Your task to perform on an android device: turn on priority inbox in the gmail app Image 0: 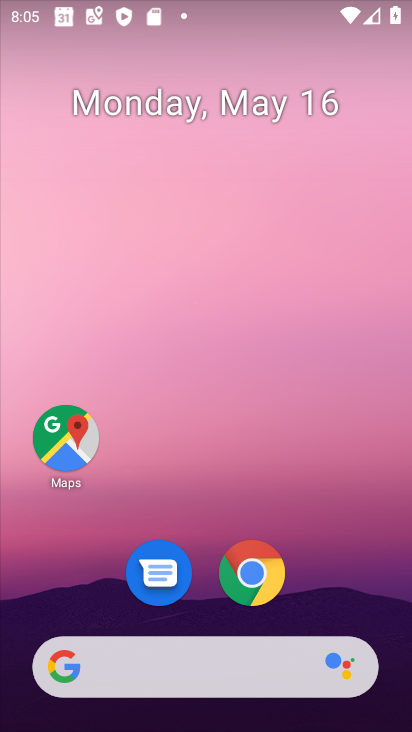
Step 0: drag from (360, 522) to (321, 104)
Your task to perform on an android device: turn on priority inbox in the gmail app Image 1: 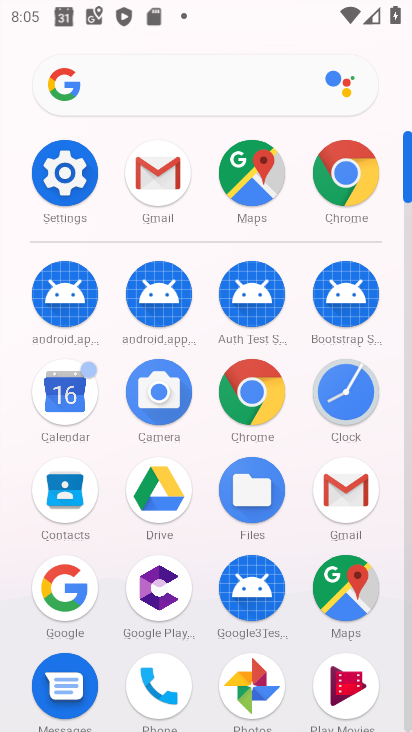
Step 1: click (154, 176)
Your task to perform on an android device: turn on priority inbox in the gmail app Image 2: 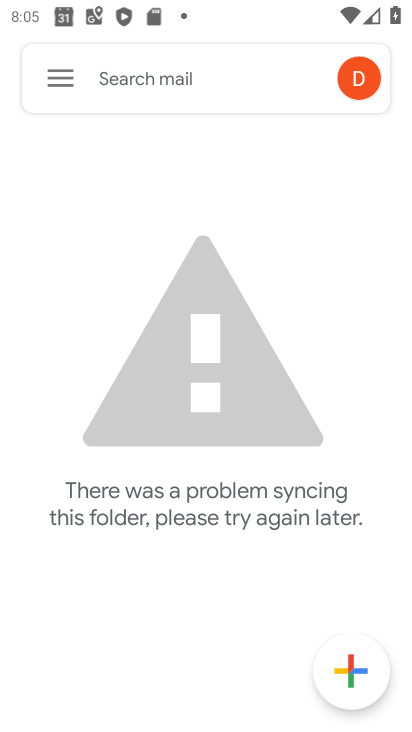
Step 2: click (67, 62)
Your task to perform on an android device: turn on priority inbox in the gmail app Image 3: 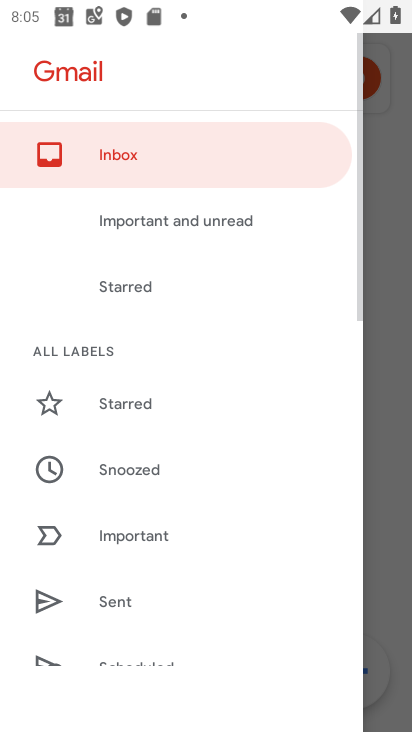
Step 3: drag from (171, 557) to (213, 72)
Your task to perform on an android device: turn on priority inbox in the gmail app Image 4: 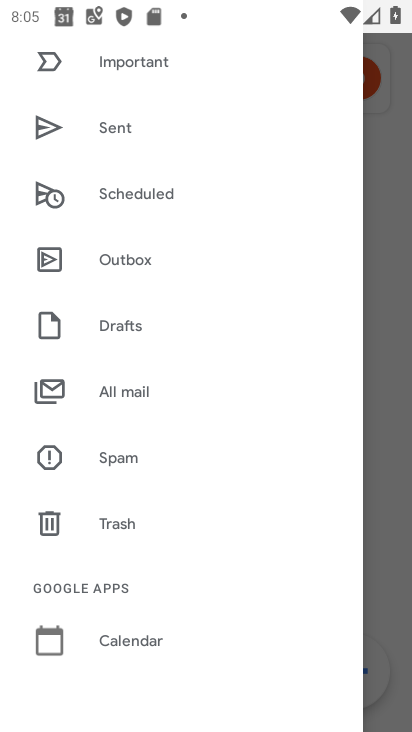
Step 4: drag from (199, 532) to (239, 120)
Your task to perform on an android device: turn on priority inbox in the gmail app Image 5: 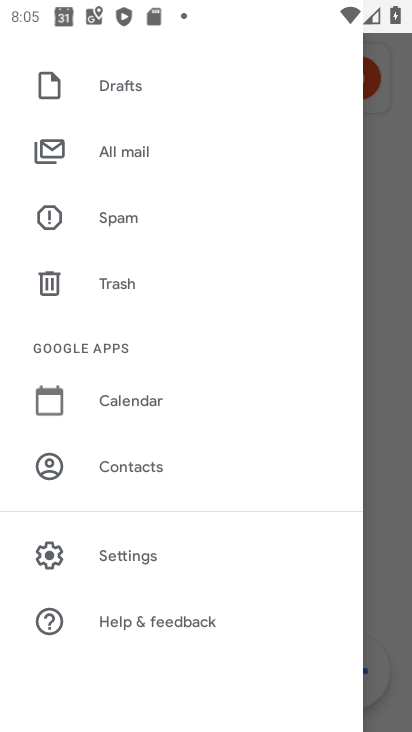
Step 5: click (132, 563)
Your task to perform on an android device: turn on priority inbox in the gmail app Image 6: 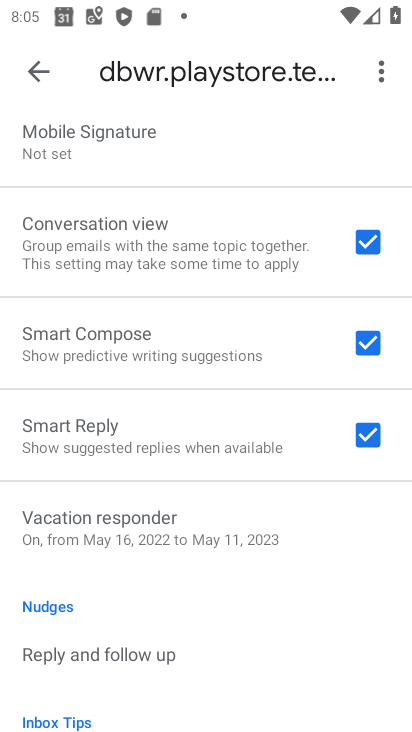
Step 6: task complete